Your task to perform on an android device: Open Google Chrome and click the shortcut for Amazon.com Image 0: 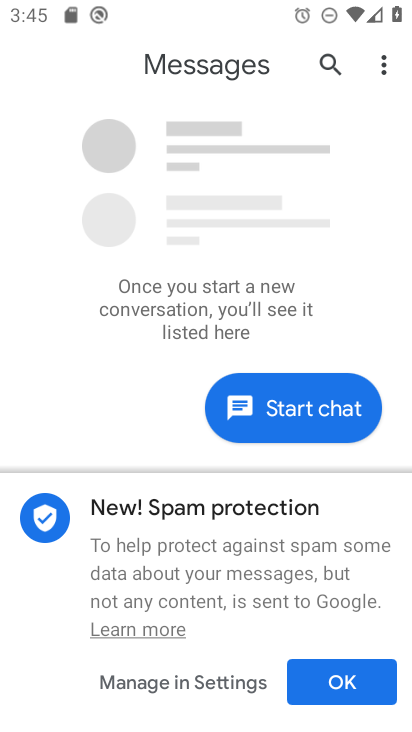
Step 0: press home button
Your task to perform on an android device: Open Google Chrome and click the shortcut for Amazon.com Image 1: 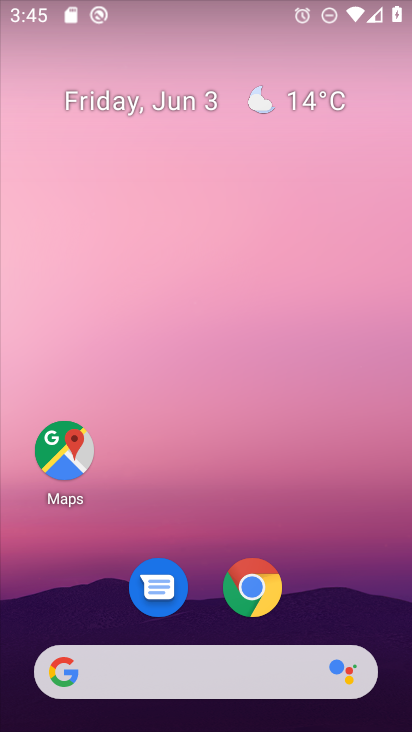
Step 1: click (257, 583)
Your task to perform on an android device: Open Google Chrome and click the shortcut for Amazon.com Image 2: 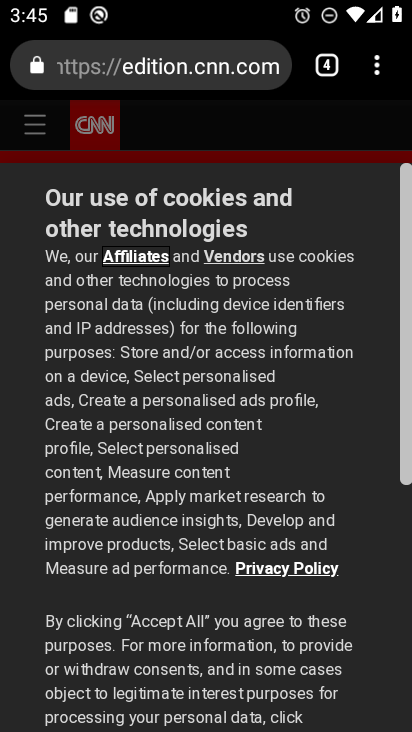
Step 2: click (379, 74)
Your task to perform on an android device: Open Google Chrome and click the shortcut for Amazon.com Image 3: 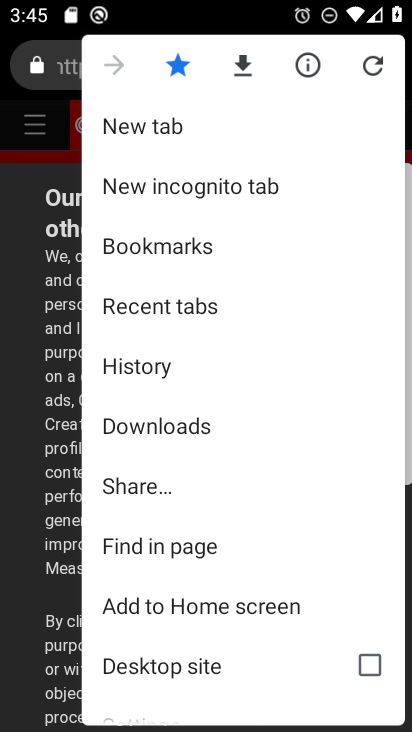
Step 3: click (166, 125)
Your task to perform on an android device: Open Google Chrome and click the shortcut for Amazon.com Image 4: 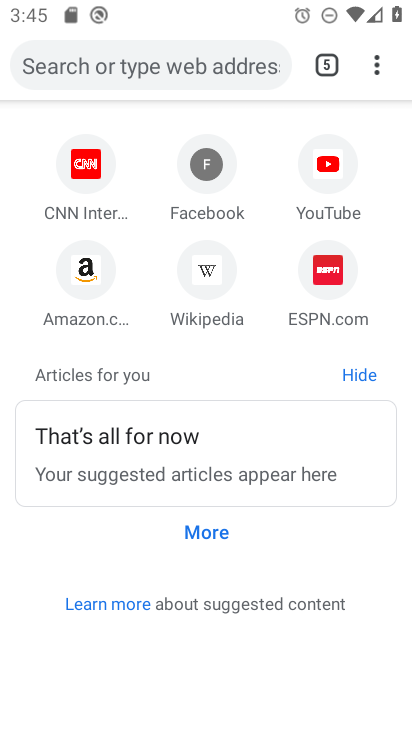
Step 4: click (81, 272)
Your task to perform on an android device: Open Google Chrome and click the shortcut for Amazon.com Image 5: 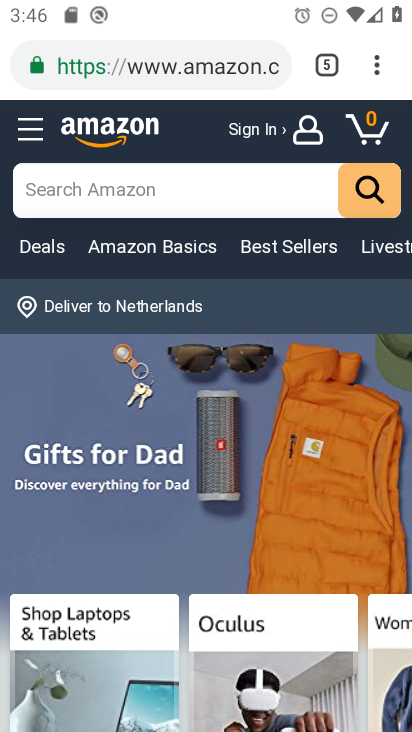
Step 5: task complete